Your task to perform on an android device: turn off sleep mode Image 0: 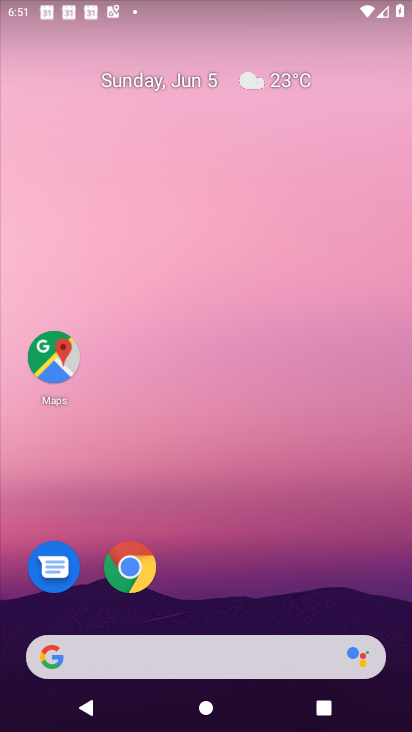
Step 0: drag from (392, 622) to (269, 20)
Your task to perform on an android device: turn off sleep mode Image 1: 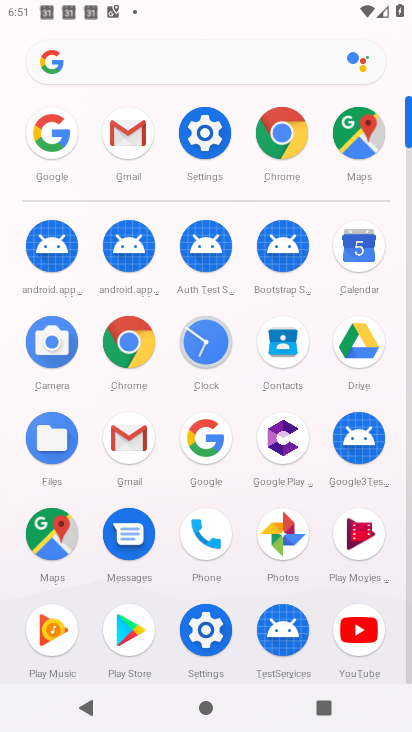
Step 1: click (203, 122)
Your task to perform on an android device: turn off sleep mode Image 2: 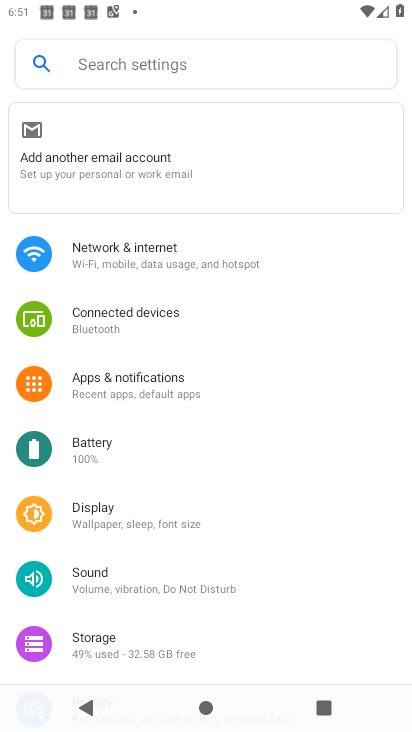
Step 2: task complete